Your task to perform on an android device: add a contact in the contacts app Image 0: 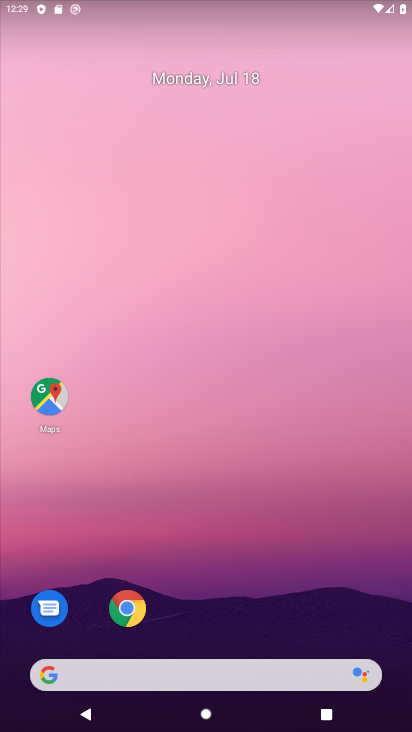
Step 0: drag from (363, 602) to (268, 161)
Your task to perform on an android device: add a contact in the contacts app Image 1: 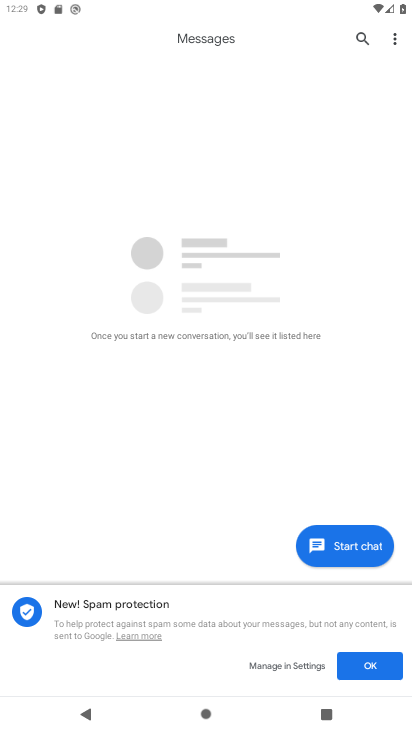
Step 1: press home button
Your task to perform on an android device: add a contact in the contacts app Image 2: 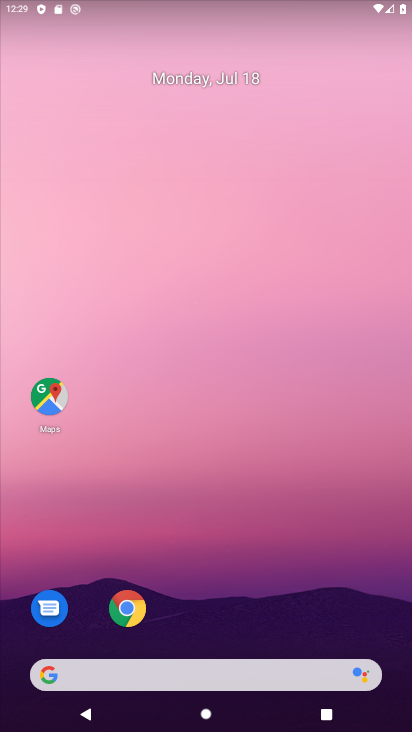
Step 2: drag from (401, 628) to (332, 177)
Your task to perform on an android device: add a contact in the contacts app Image 3: 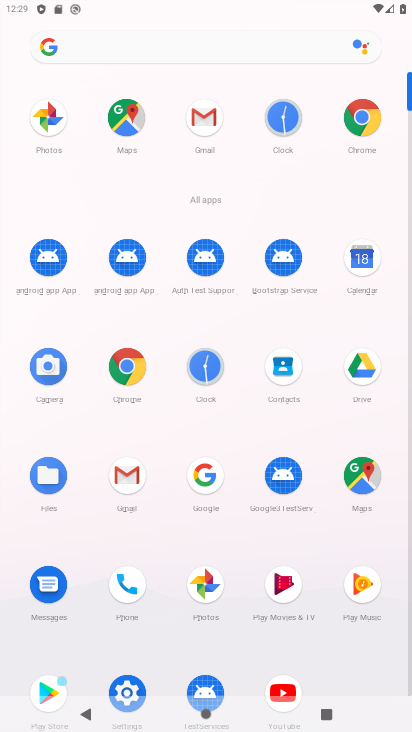
Step 3: click (281, 364)
Your task to perform on an android device: add a contact in the contacts app Image 4: 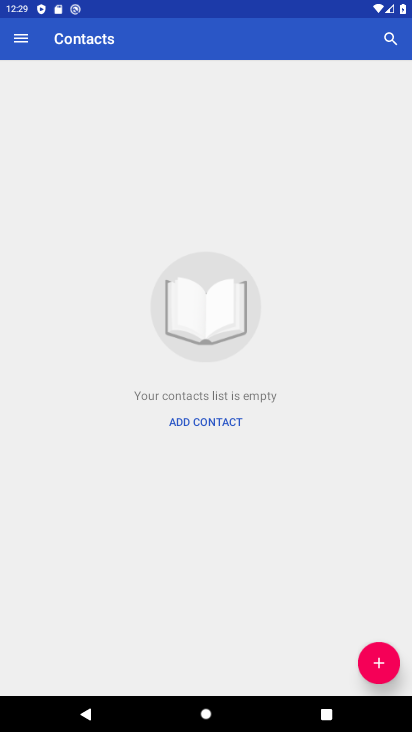
Step 4: click (281, 364)
Your task to perform on an android device: add a contact in the contacts app Image 5: 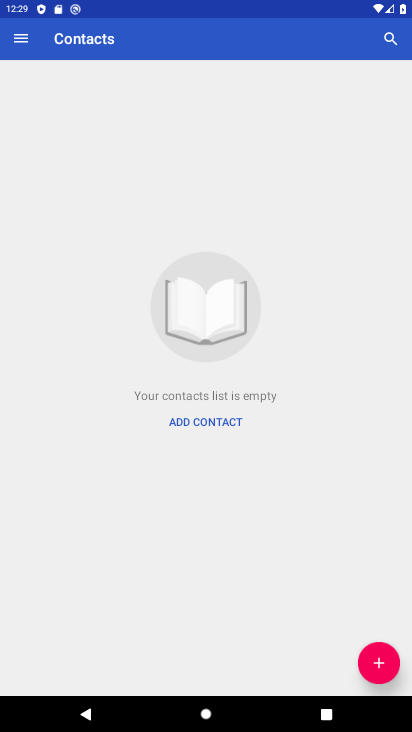
Step 5: click (380, 667)
Your task to perform on an android device: add a contact in the contacts app Image 6: 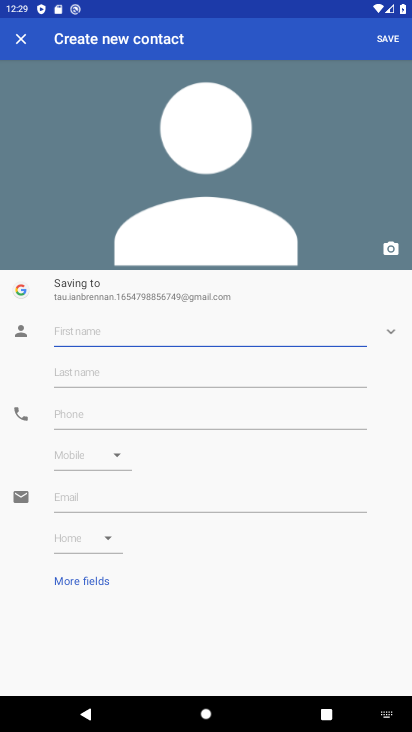
Step 6: click (239, 335)
Your task to perform on an android device: add a contact in the contacts app Image 7: 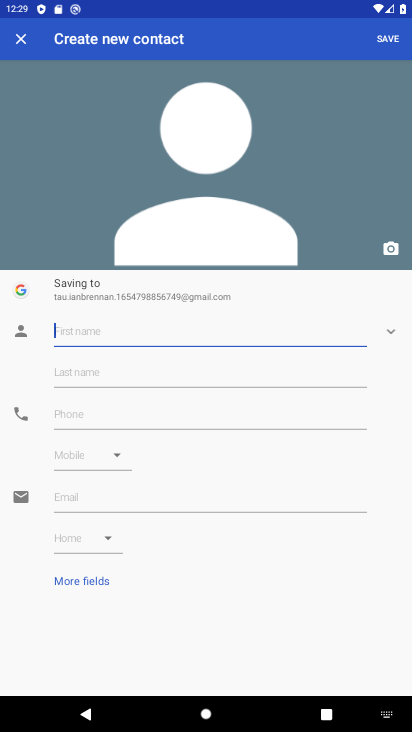
Step 7: type "cvhgvhg"
Your task to perform on an android device: add a contact in the contacts app Image 8: 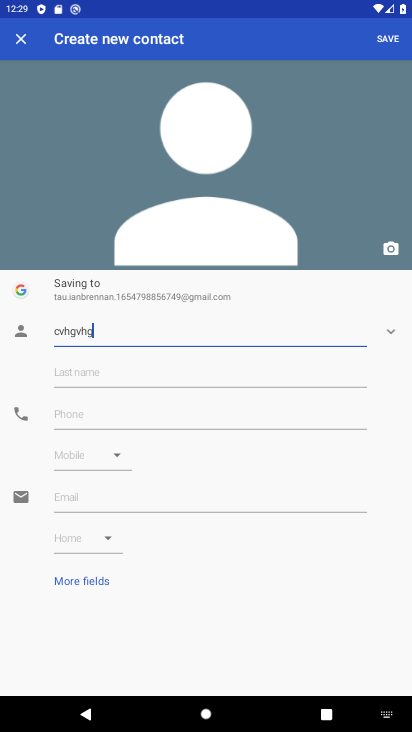
Step 8: click (354, 420)
Your task to perform on an android device: add a contact in the contacts app Image 9: 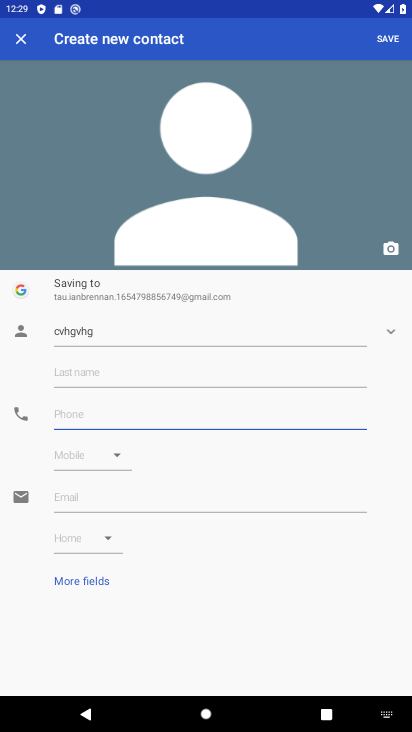
Step 9: type "6878787"
Your task to perform on an android device: add a contact in the contacts app Image 10: 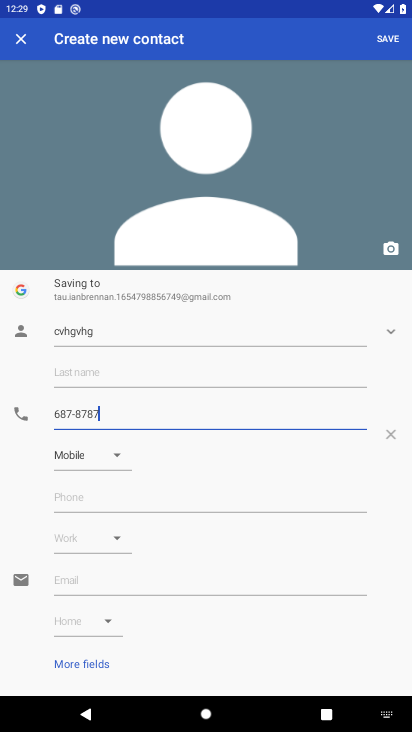
Step 10: click (395, 44)
Your task to perform on an android device: add a contact in the contacts app Image 11: 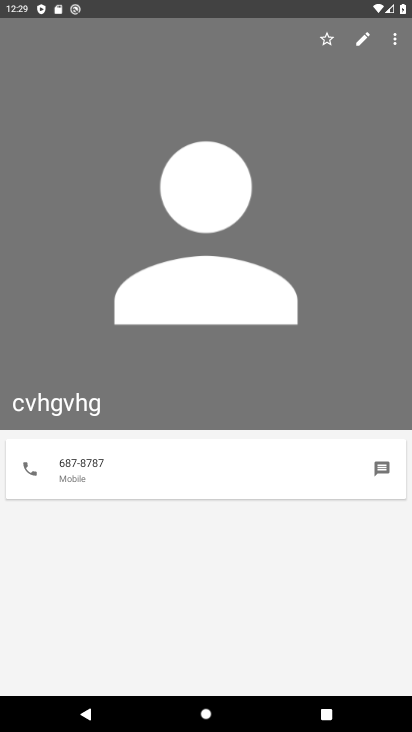
Step 11: task complete